Your task to perform on an android device: make emails show in primary in the gmail app Image 0: 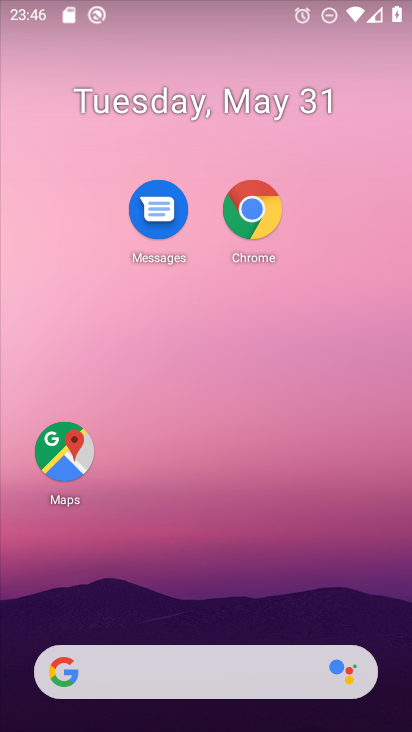
Step 0: press home button
Your task to perform on an android device: make emails show in primary in the gmail app Image 1: 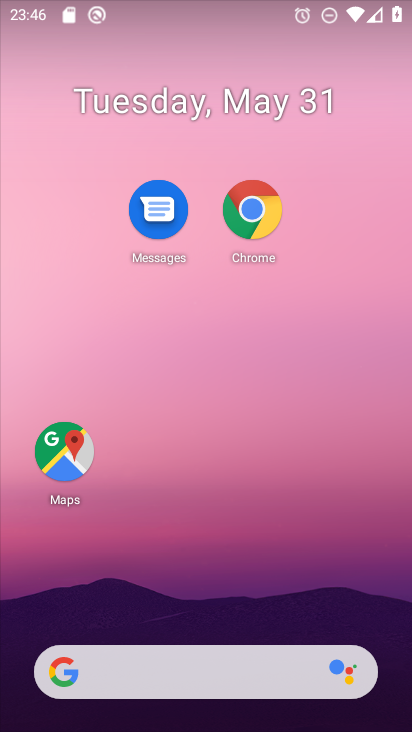
Step 1: drag from (230, 614) to (198, 24)
Your task to perform on an android device: make emails show in primary in the gmail app Image 2: 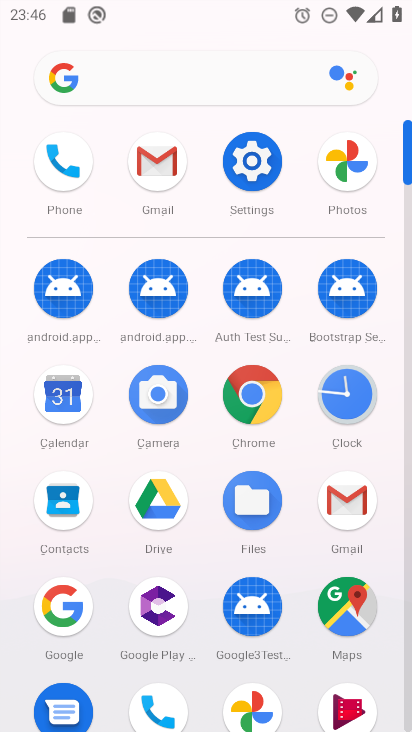
Step 2: click (346, 492)
Your task to perform on an android device: make emails show in primary in the gmail app Image 3: 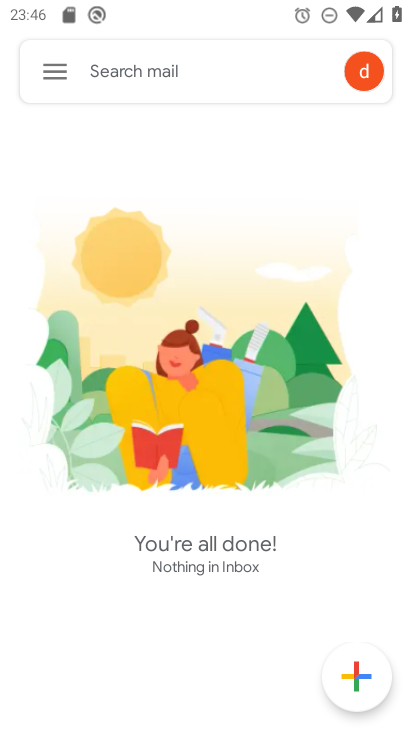
Step 3: click (46, 66)
Your task to perform on an android device: make emails show in primary in the gmail app Image 4: 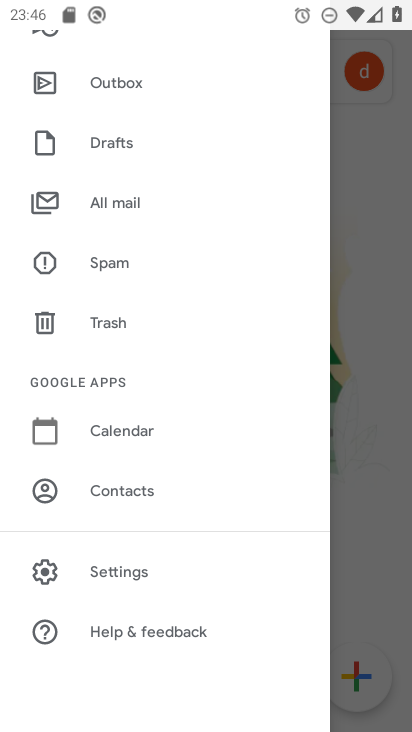
Step 4: click (161, 569)
Your task to perform on an android device: make emails show in primary in the gmail app Image 5: 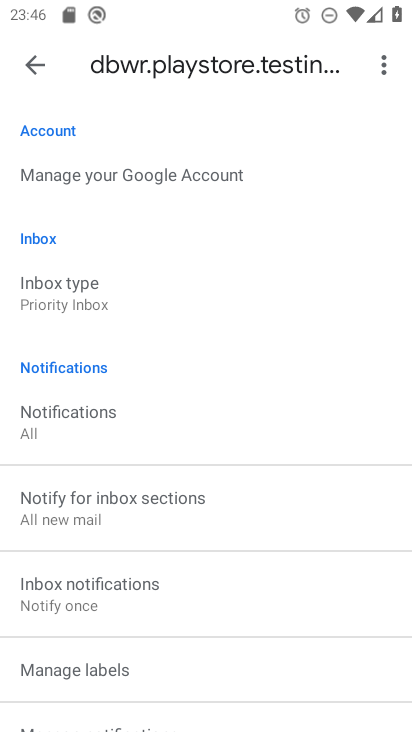
Step 5: click (118, 284)
Your task to perform on an android device: make emails show in primary in the gmail app Image 6: 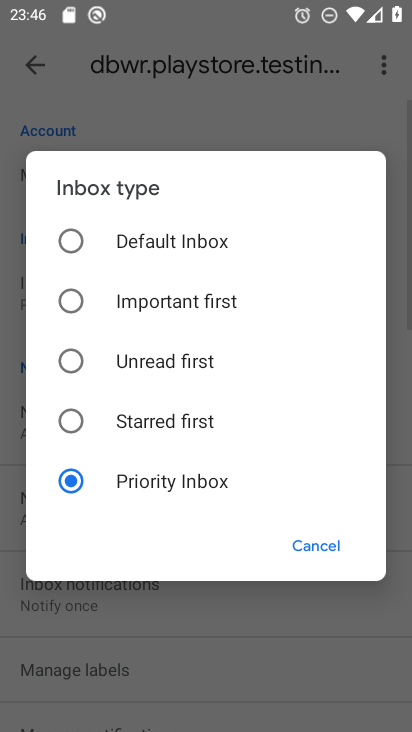
Step 6: click (70, 238)
Your task to perform on an android device: make emails show in primary in the gmail app Image 7: 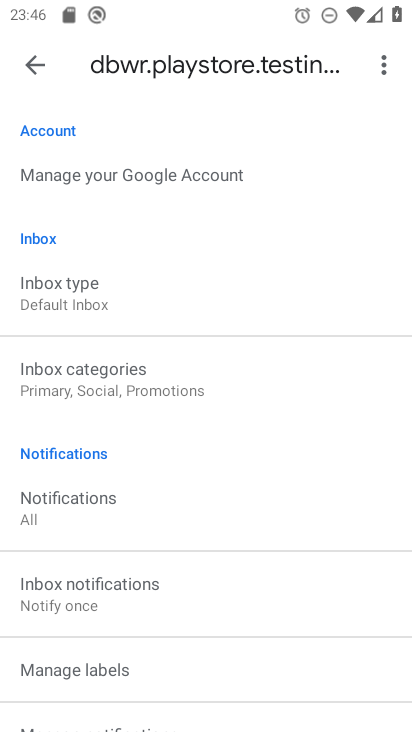
Step 7: task complete